Your task to perform on an android device: turn off priority inbox in the gmail app Image 0: 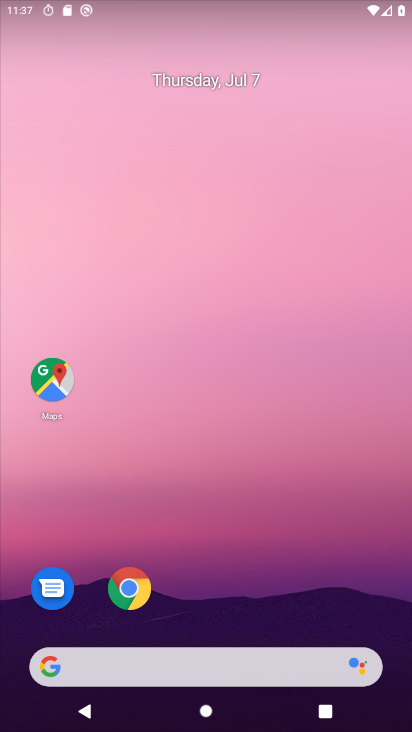
Step 0: click (268, 203)
Your task to perform on an android device: turn off priority inbox in the gmail app Image 1: 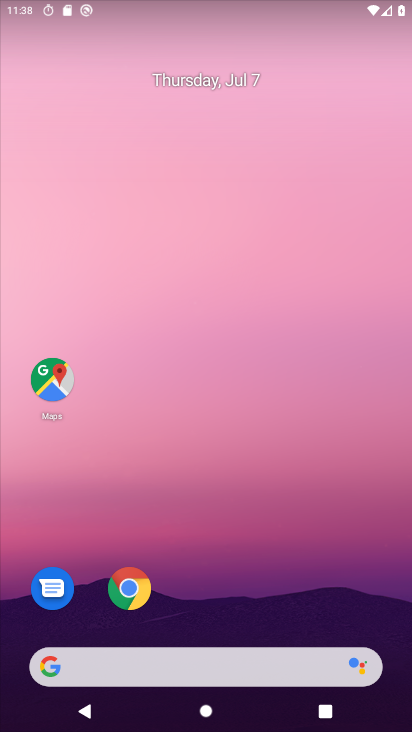
Step 1: drag from (183, 670) to (320, 80)
Your task to perform on an android device: turn off priority inbox in the gmail app Image 2: 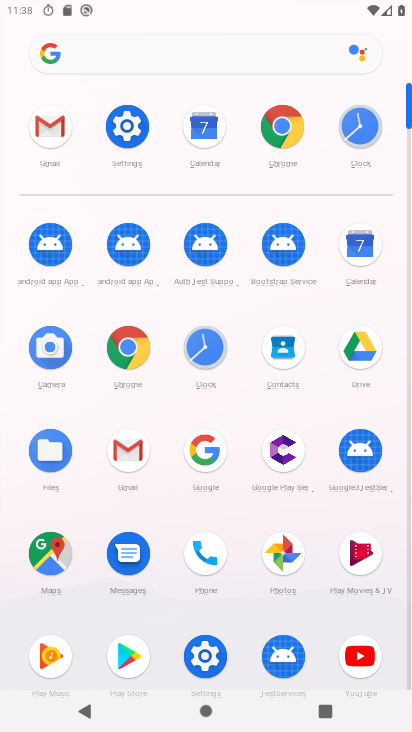
Step 2: click (43, 137)
Your task to perform on an android device: turn off priority inbox in the gmail app Image 3: 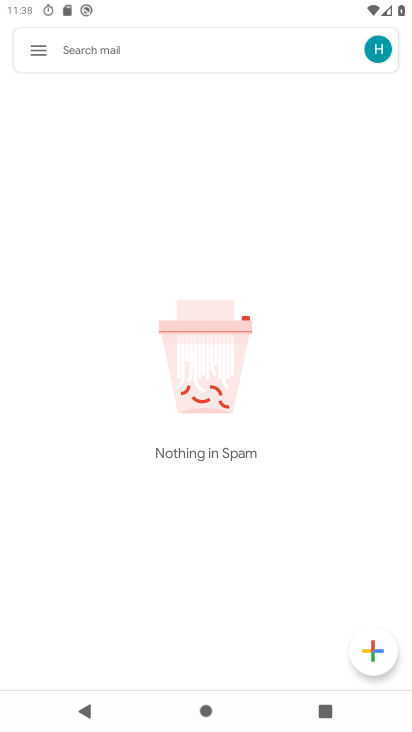
Step 3: click (37, 50)
Your task to perform on an android device: turn off priority inbox in the gmail app Image 4: 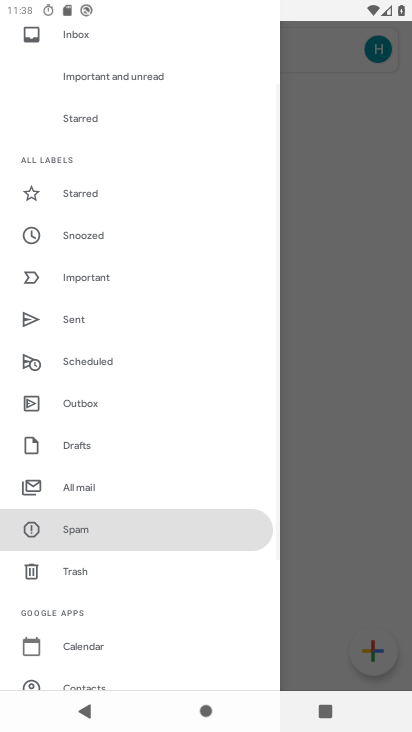
Step 4: drag from (126, 638) to (238, 163)
Your task to perform on an android device: turn off priority inbox in the gmail app Image 5: 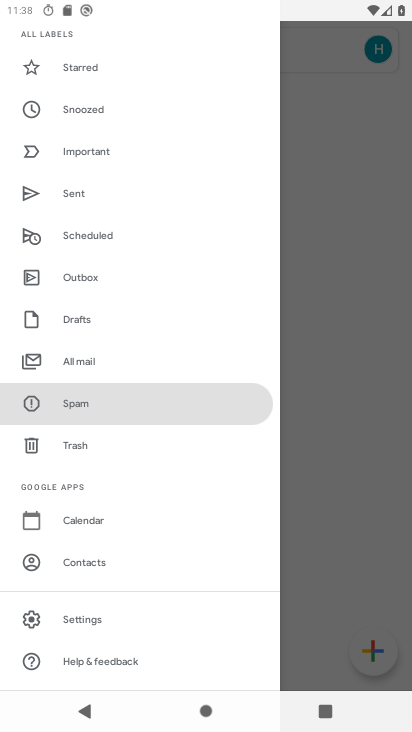
Step 5: click (107, 630)
Your task to perform on an android device: turn off priority inbox in the gmail app Image 6: 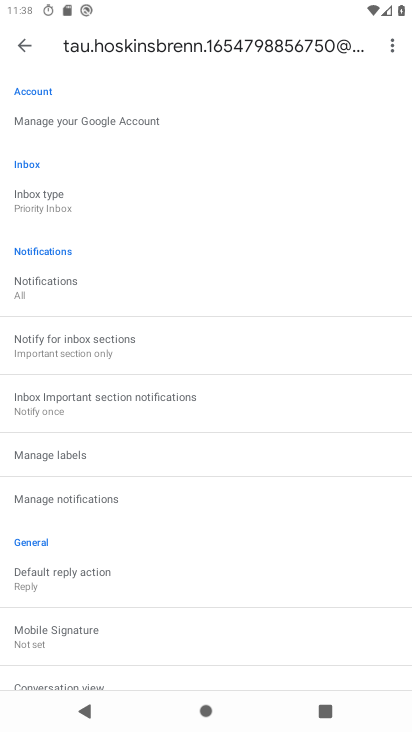
Step 6: click (55, 202)
Your task to perform on an android device: turn off priority inbox in the gmail app Image 7: 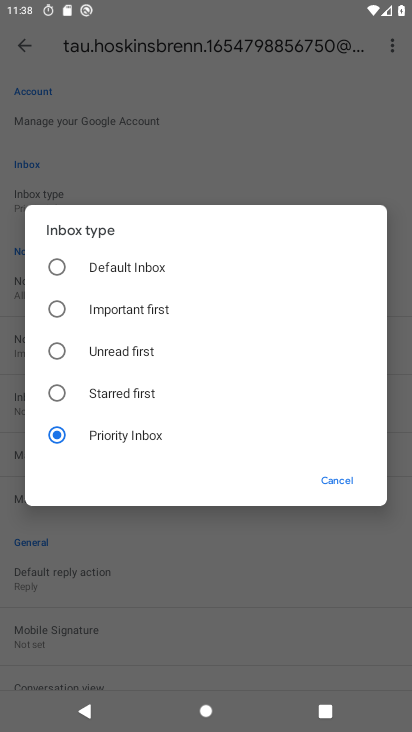
Step 7: click (52, 263)
Your task to perform on an android device: turn off priority inbox in the gmail app Image 8: 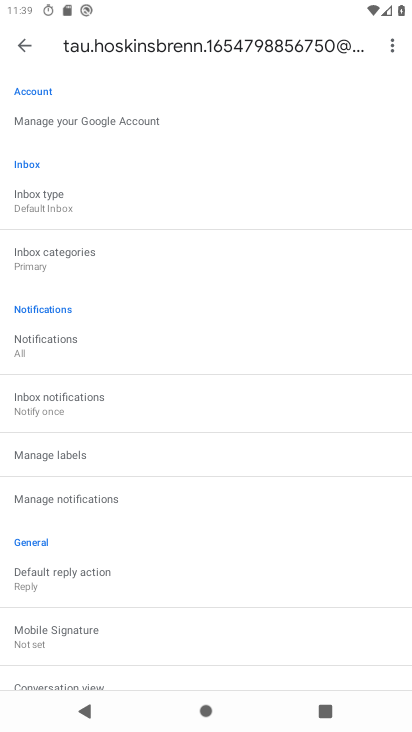
Step 8: task complete